Your task to perform on an android device: Do I have any events tomorrow? Image 0: 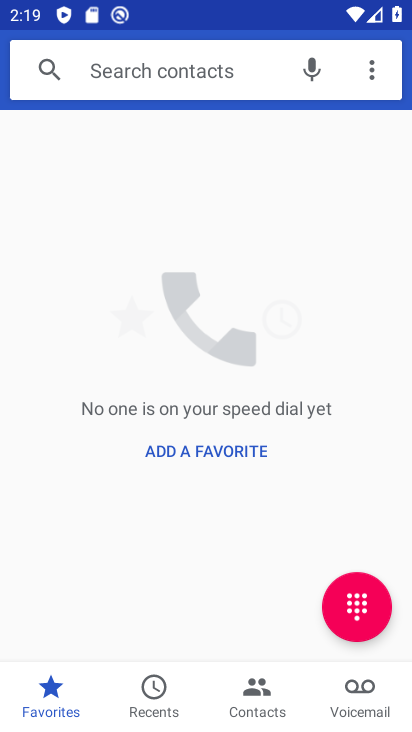
Step 0: press home button
Your task to perform on an android device: Do I have any events tomorrow? Image 1: 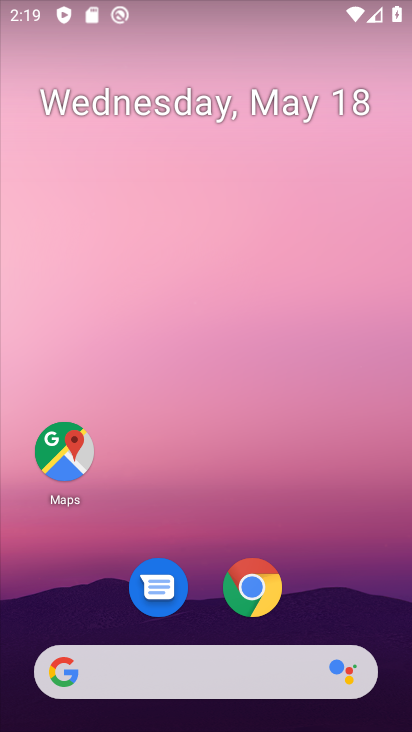
Step 1: drag from (14, 213) to (406, 188)
Your task to perform on an android device: Do I have any events tomorrow? Image 2: 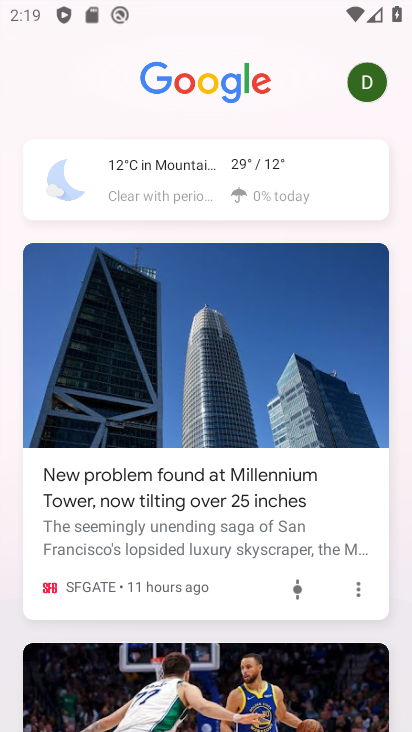
Step 2: drag from (248, 476) to (232, 318)
Your task to perform on an android device: Do I have any events tomorrow? Image 3: 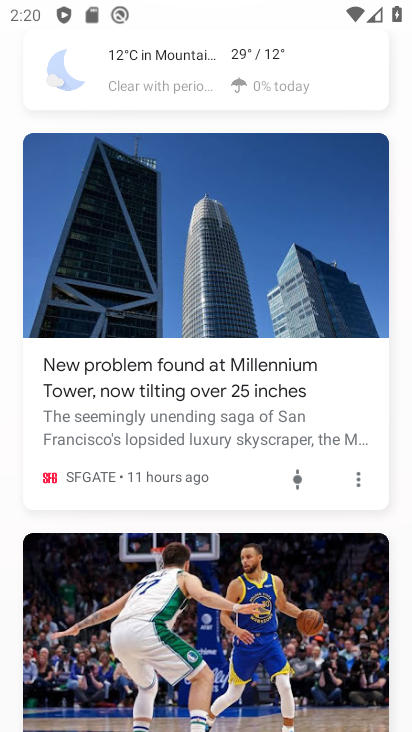
Step 3: press home button
Your task to perform on an android device: Do I have any events tomorrow? Image 4: 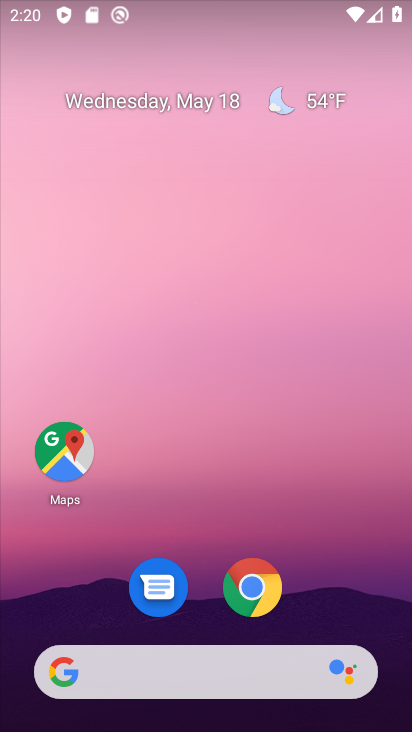
Step 4: drag from (240, 501) to (196, 138)
Your task to perform on an android device: Do I have any events tomorrow? Image 5: 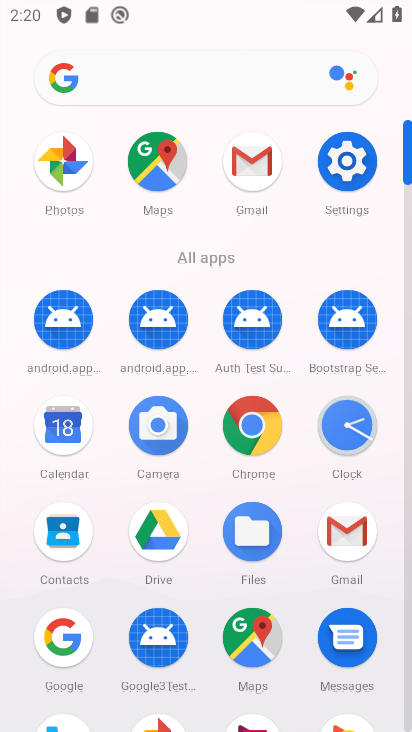
Step 5: click (56, 438)
Your task to perform on an android device: Do I have any events tomorrow? Image 6: 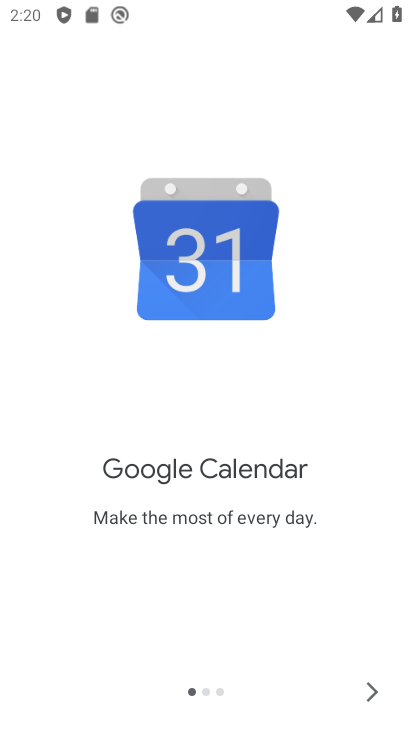
Step 6: click (373, 685)
Your task to perform on an android device: Do I have any events tomorrow? Image 7: 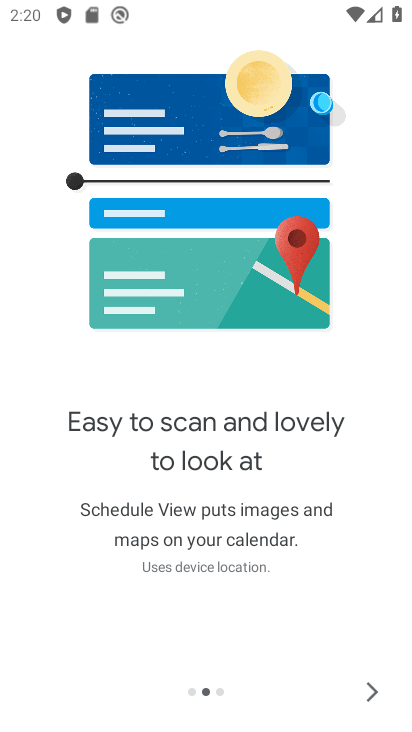
Step 7: click (373, 683)
Your task to perform on an android device: Do I have any events tomorrow? Image 8: 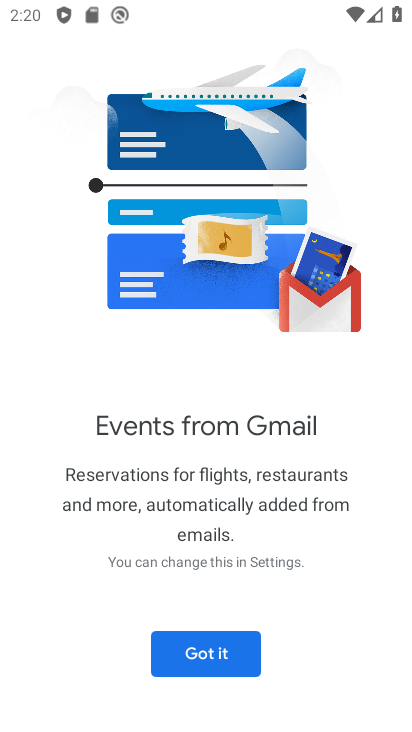
Step 8: click (208, 662)
Your task to perform on an android device: Do I have any events tomorrow? Image 9: 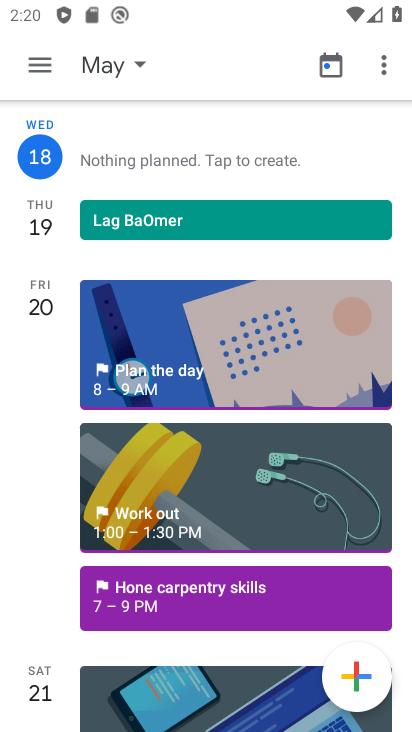
Step 9: click (46, 56)
Your task to perform on an android device: Do I have any events tomorrow? Image 10: 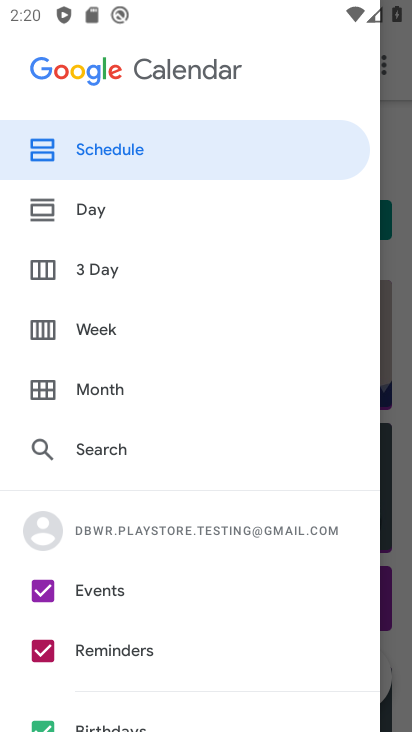
Step 10: click (98, 218)
Your task to perform on an android device: Do I have any events tomorrow? Image 11: 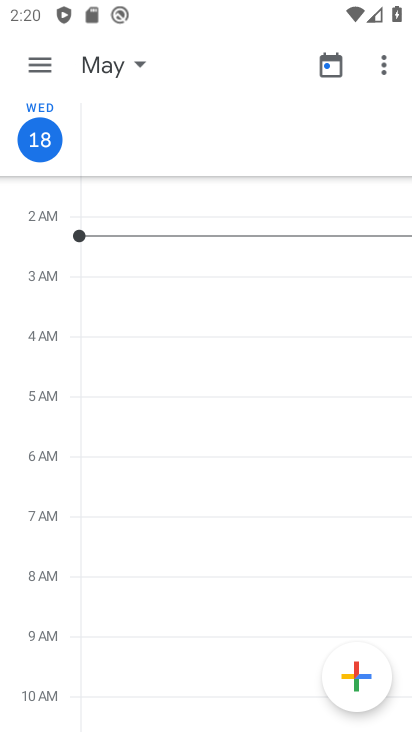
Step 11: click (133, 63)
Your task to perform on an android device: Do I have any events tomorrow? Image 12: 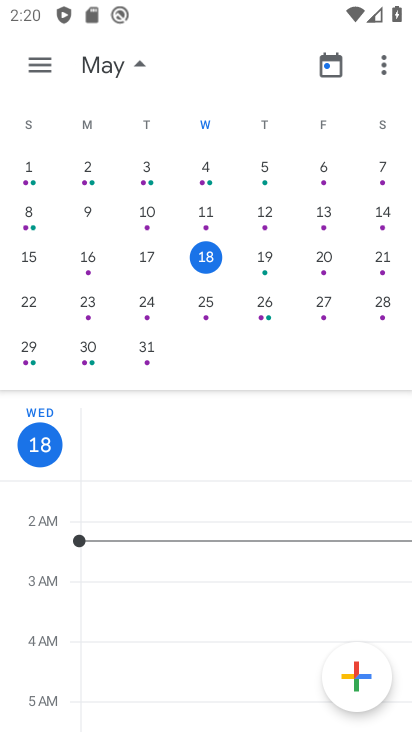
Step 12: click (267, 252)
Your task to perform on an android device: Do I have any events tomorrow? Image 13: 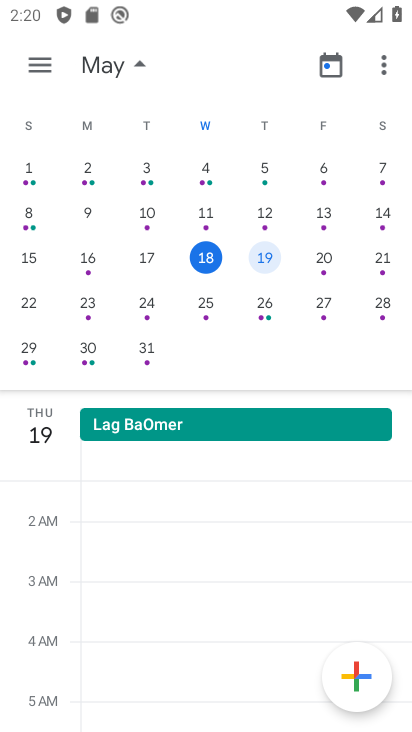
Step 13: task complete